Your task to perform on an android device: Go to CNN.com Image 0: 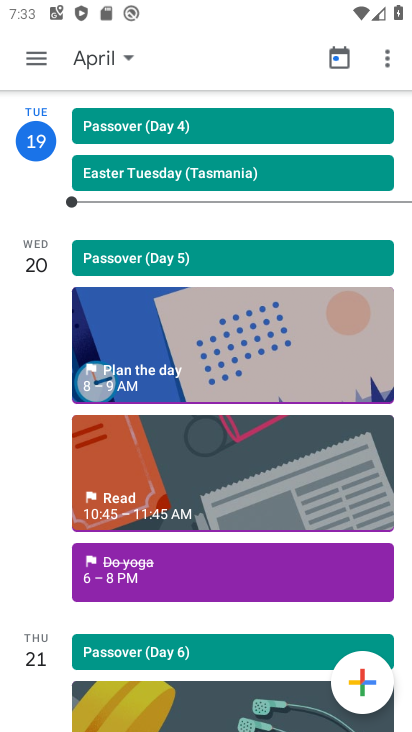
Step 0: press home button
Your task to perform on an android device: Go to CNN.com Image 1: 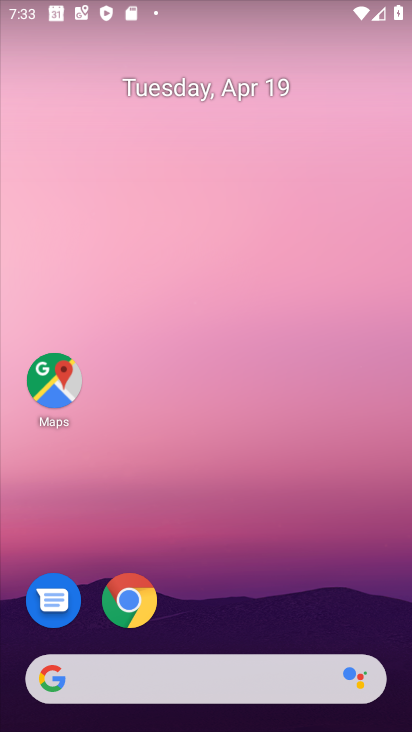
Step 1: drag from (381, 598) to (373, 86)
Your task to perform on an android device: Go to CNN.com Image 2: 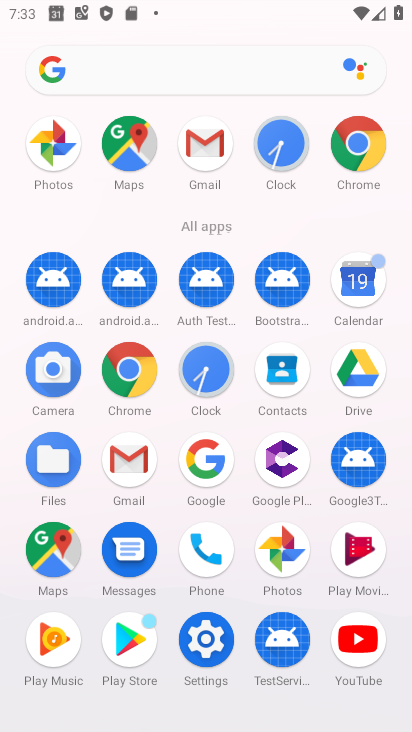
Step 2: click (129, 372)
Your task to perform on an android device: Go to CNN.com Image 3: 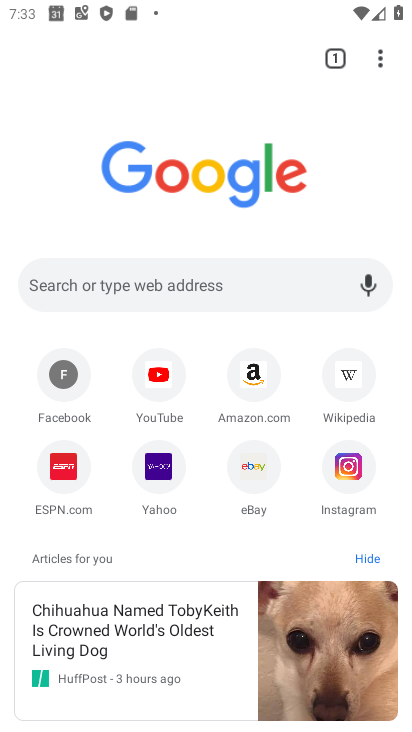
Step 3: click (228, 286)
Your task to perform on an android device: Go to CNN.com Image 4: 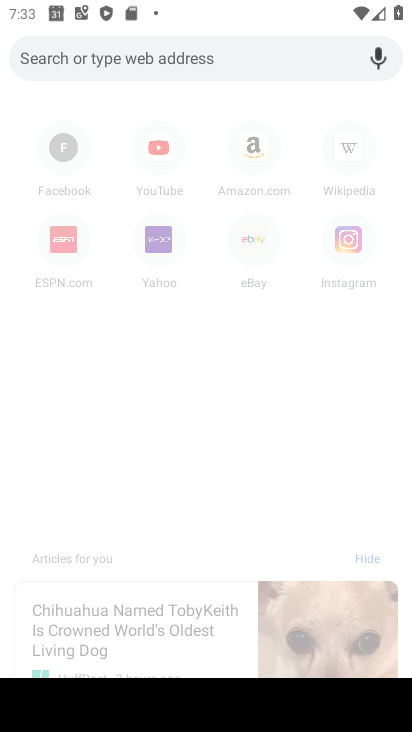
Step 4: type "cnn.com"
Your task to perform on an android device: Go to CNN.com Image 5: 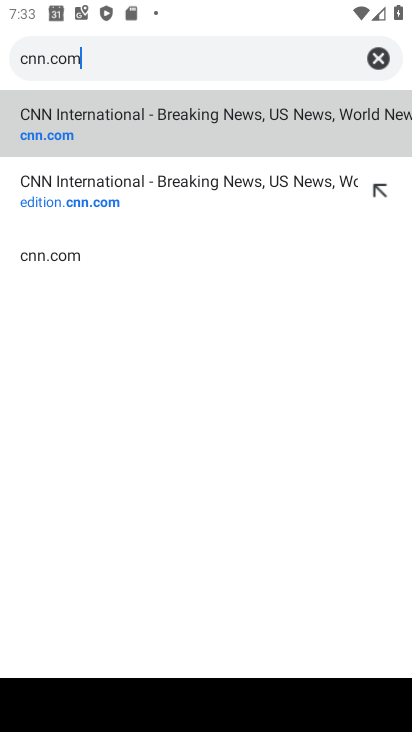
Step 5: click (72, 257)
Your task to perform on an android device: Go to CNN.com Image 6: 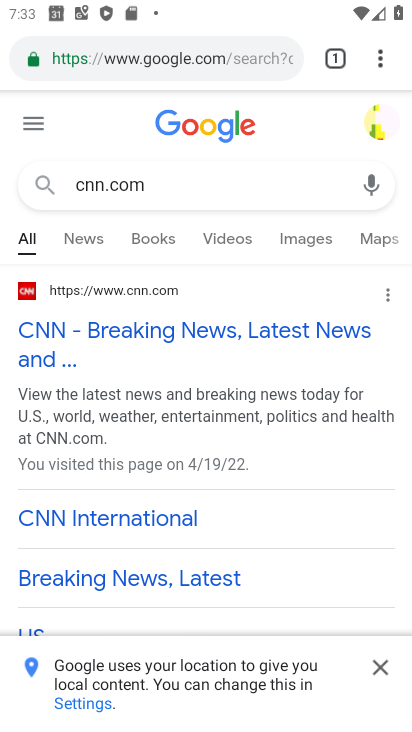
Step 6: click (190, 332)
Your task to perform on an android device: Go to CNN.com Image 7: 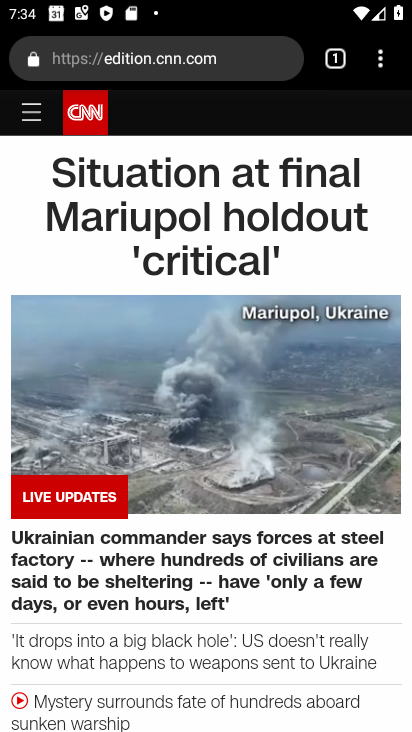
Step 7: task complete